Your task to perform on an android device: turn off translation in the chrome app Image 0: 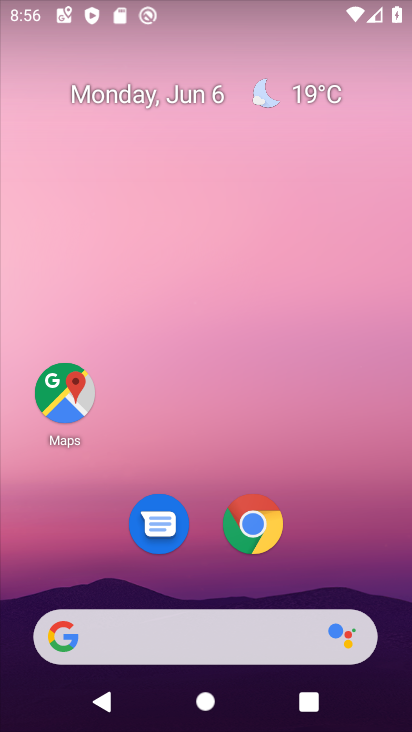
Step 0: drag from (348, 508) to (259, 309)
Your task to perform on an android device: turn off translation in the chrome app Image 1: 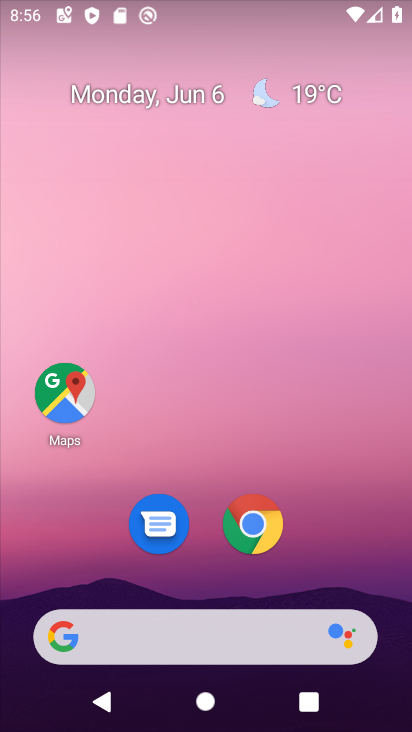
Step 1: click (245, 525)
Your task to perform on an android device: turn off translation in the chrome app Image 2: 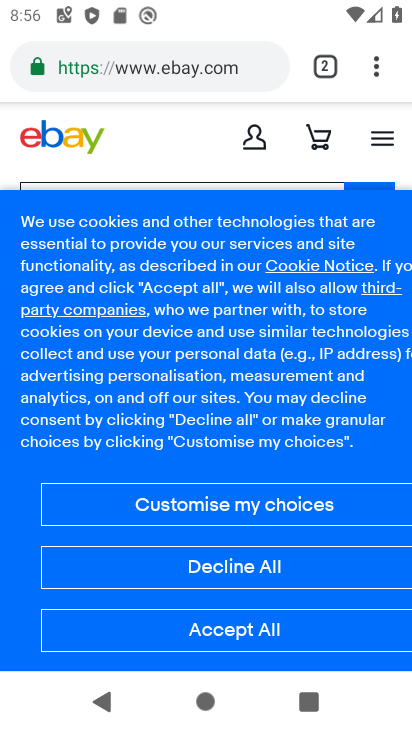
Step 2: click (376, 62)
Your task to perform on an android device: turn off translation in the chrome app Image 3: 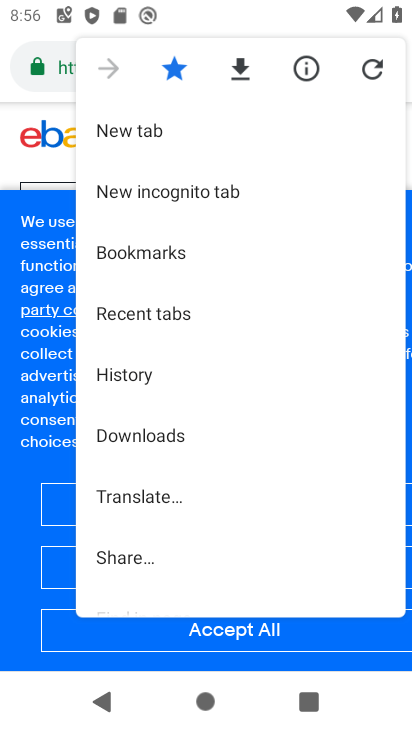
Step 3: drag from (221, 427) to (222, 298)
Your task to perform on an android device: turn off translation in the chrome app Image 4: 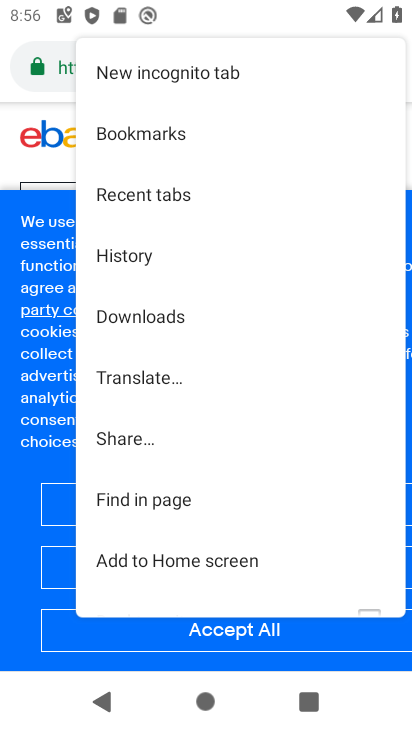
Step 4: drag from (213, 462) to (245, 168)
Your task to perform on an android device: turn off translation in the chrome app Image 5: 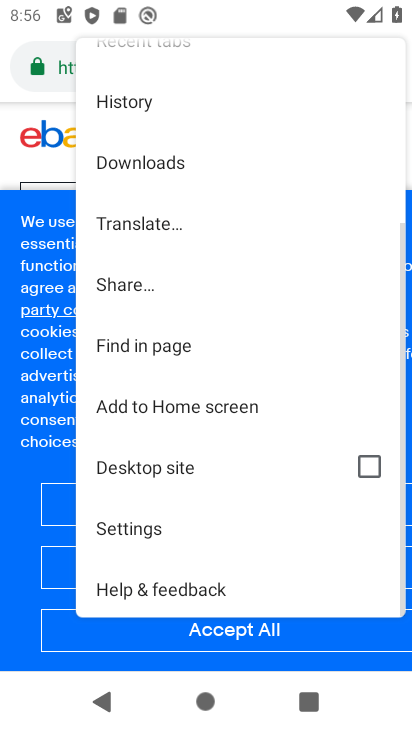
Step 5: click (204, 533)
Your task to perform on an android device: turn off translation in the chrome app Image 6: 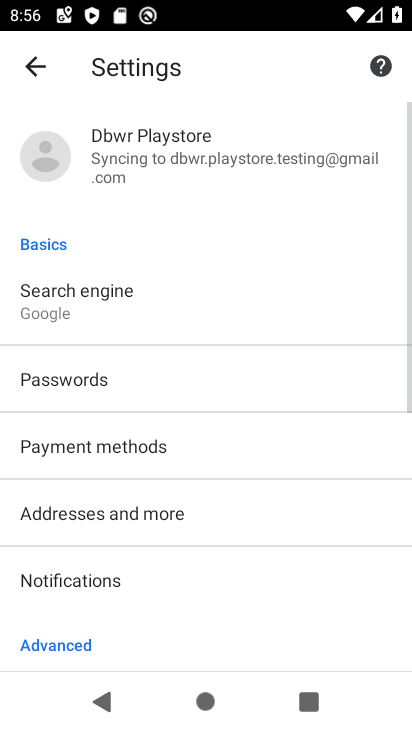
Step 6: drag from (267, 592) to (272, 266)
Your task to perform on an android device: turn off translation in the chrome app Image 7: 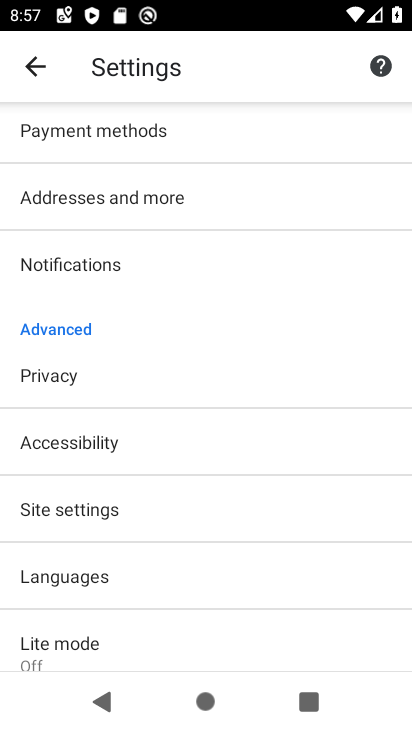
Step 7: click (234, 569)
Your task to perform on an android device: turn off translation in the chrome app Image 8: 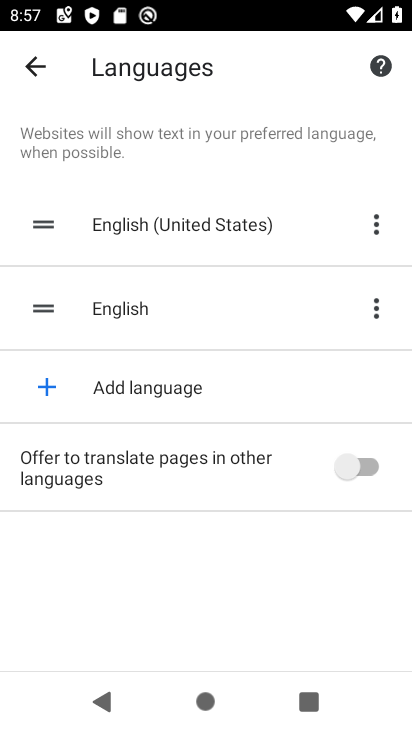
Step 8: task complete